Your task to perform on an android device: turn vacation reply on in the gmail app Image 0: 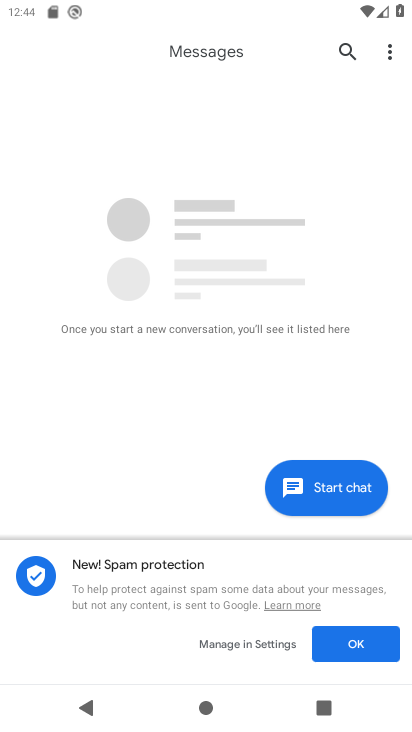
Step 0: press home button
Your task to perform on an android device: turn vacation reply on in the gmail app Image 1: 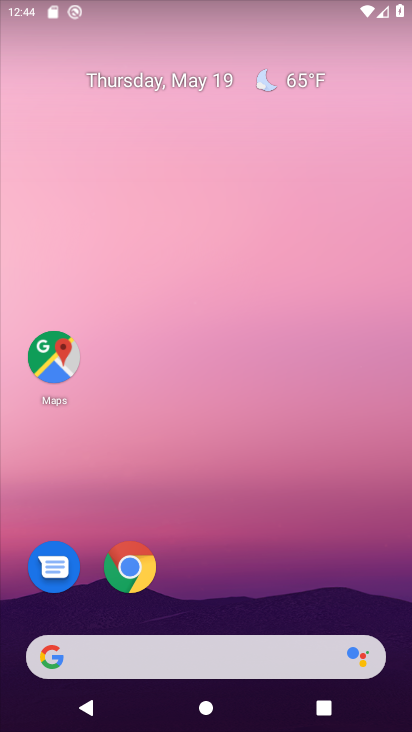
Step 1: drag from (274, 584) to (246, 255)
Your task to perform on an android device: turn vacation reply on in the gmail app Image 2: 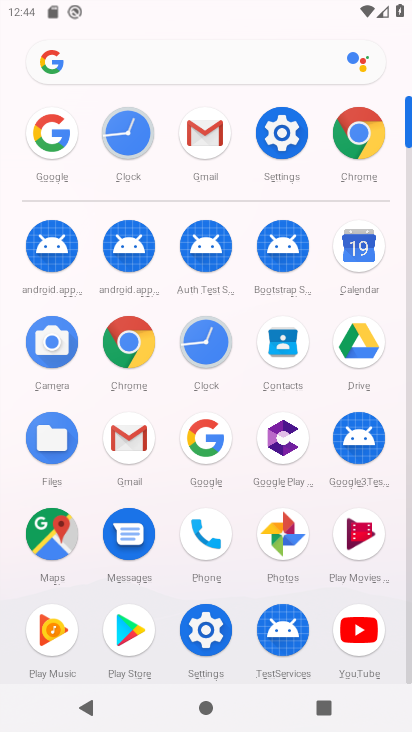
Step 2: click (209, 127)
Your task to perform on an android device: turn vacation reply on in the gmail app Image 3: 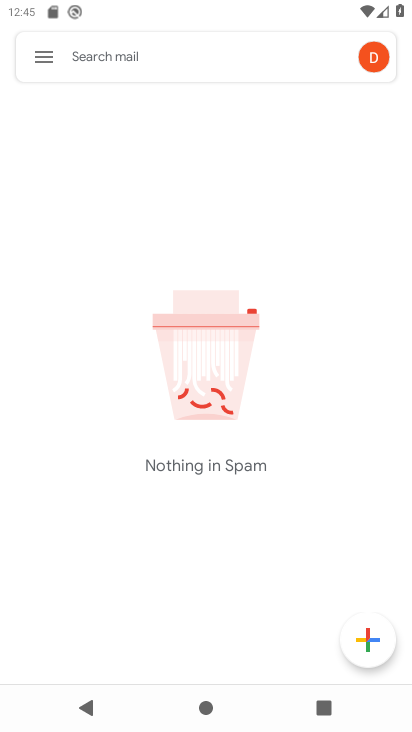
Step 3: click (44, 60)
Your task to perform on an android device: turn vacation reply on in the gmail app Image 4: 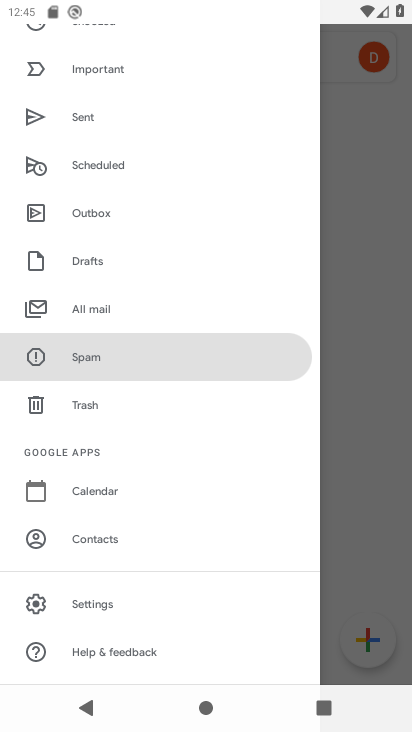
Step 4: click (129, 609)
Your task to perform on an android device: turn vacation reply on in the gmail app Image 5: 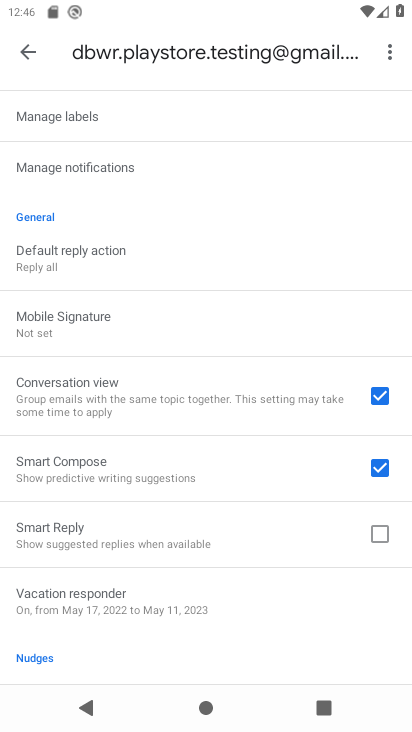
Step 5: click (208, 588)
Your task to perform on an android device: turn vacation reply on in the gmail app Image 6: 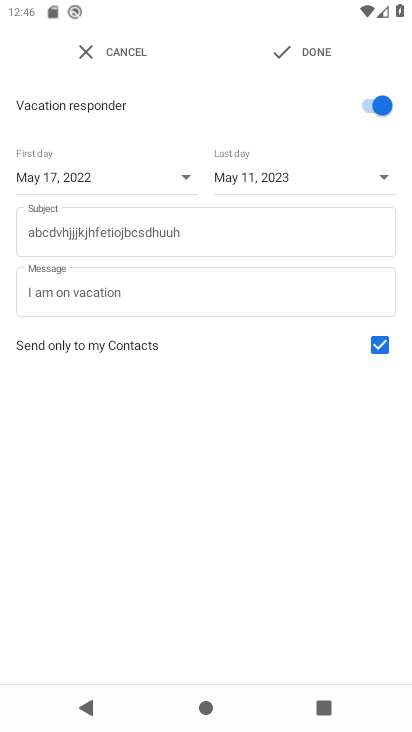
Step 6: click (312, 47)
Your task to perform on an android device: turn vacation reply on in the gmail app Image 7: 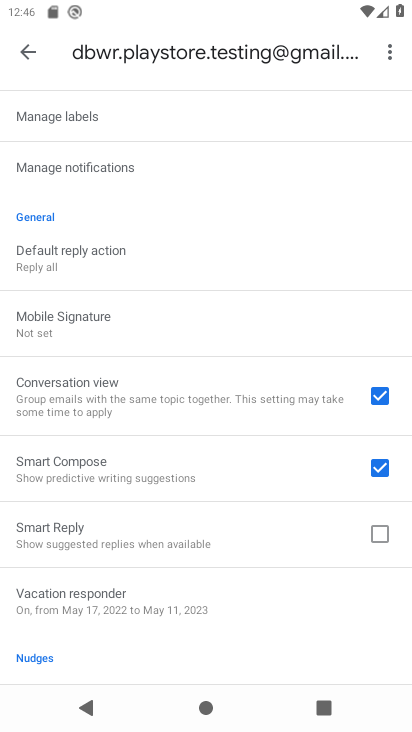
Step 7: task complete